Your task to perform on an android device: find photos in the google photos app Image 0: 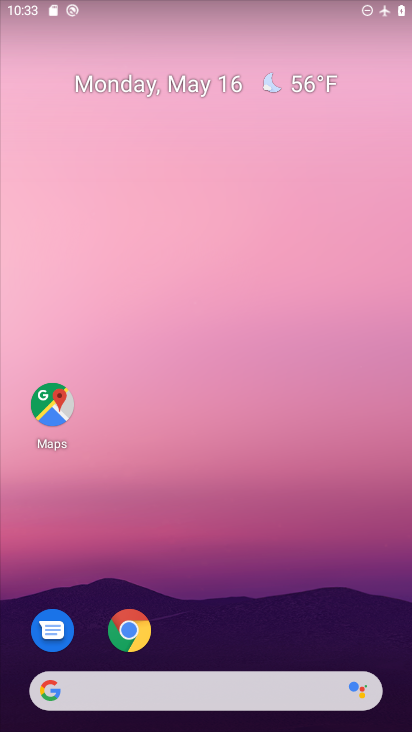
Step 0: drag from (265, 619) to (279, 64)
Your task to perform on an android device: find photos in the google photos app Image 1: 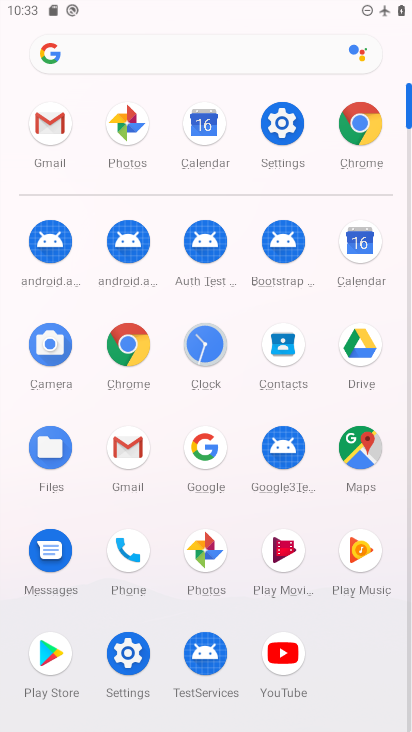
Step 1: click (126, 124)
Your task to perform on an android device: find photos in the google photos app Image 2: 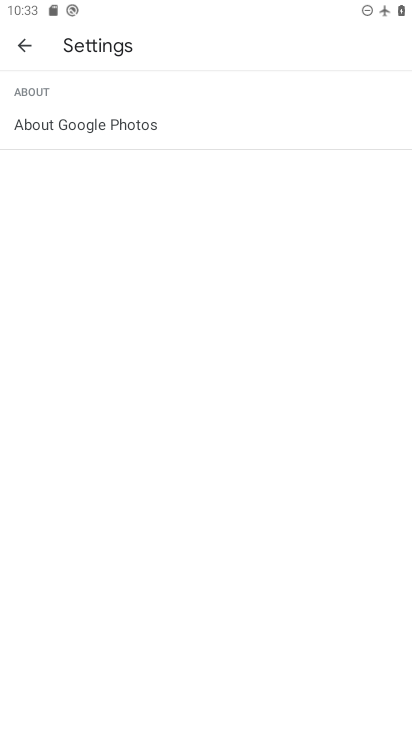
Step 2: click (28, 47)
Your task to perform on an android device: find photos in the google photos app Image 3: 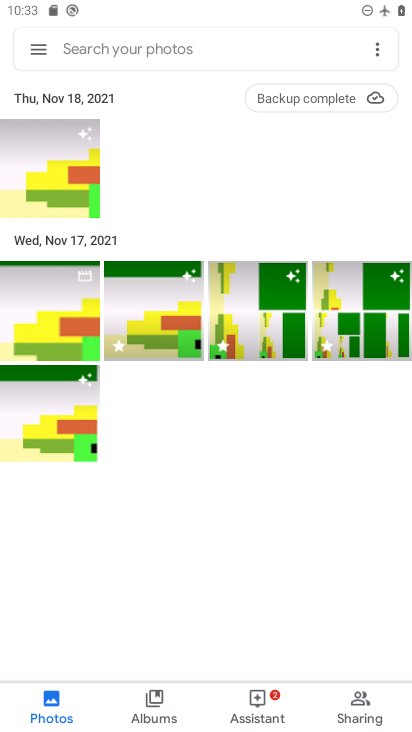
Step 3: task complete